Your task to perform on an android device: open app "Cash App" (install if not already installed) Image 0: 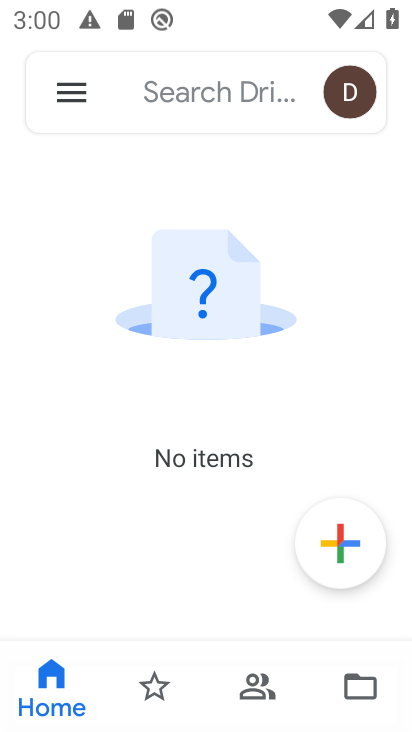
Step 0: press home button
Your task to perform on an android device: open app "Cash App" (install if not already installed) Image 1: 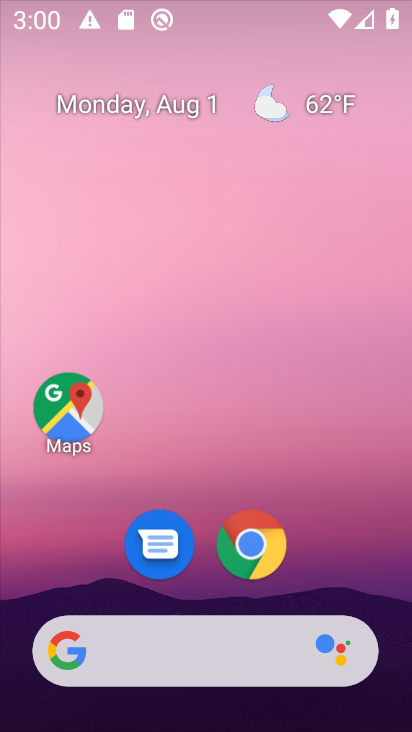
Step 1: drag from (395, 621) to (246, 18)
Your task to perform on an android device: open app "Cash App" (install if not already installed) Image 2: 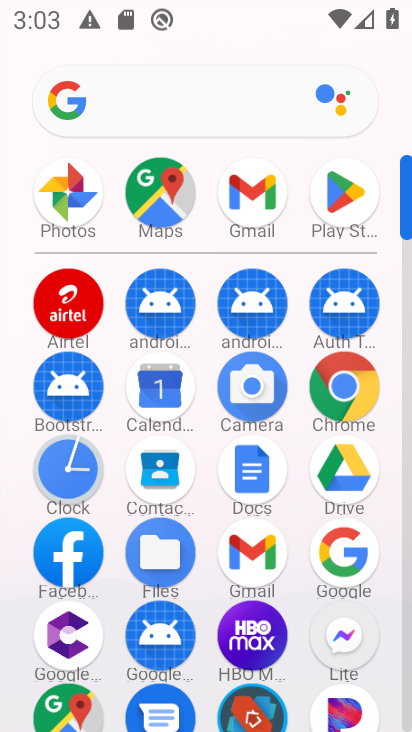
Step 2: click (347, 193)
Your task to perform on an android device: open app "Cash App" (install if not already installed) Image 3: 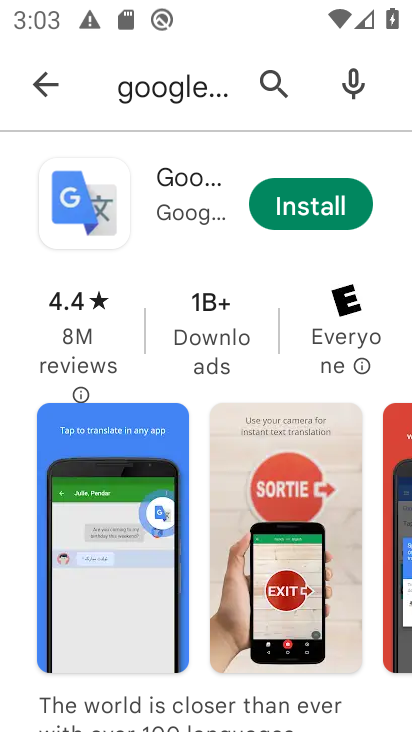
Step 3: press back button
Your task to perform on an android device: open app "Cash App" (install if not already installed) Image 4: 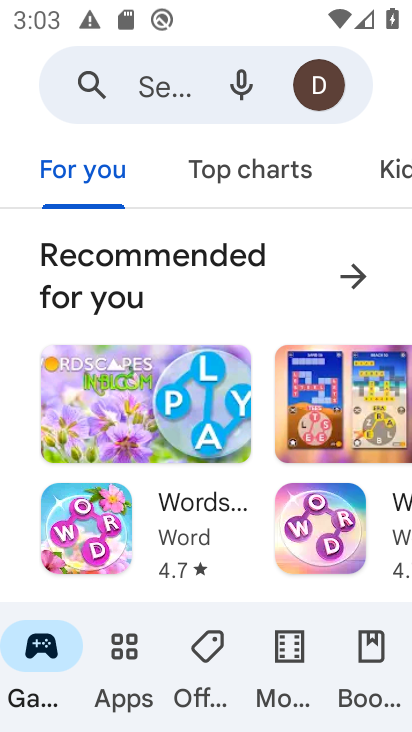
Step 4: click (149, 78)
Your task to perform on an android device: open app "Cash App" (install if not already installed) Image 5: 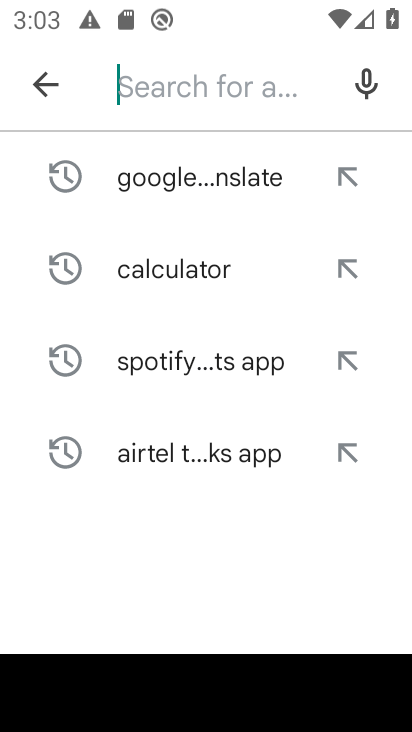
Step 5: type "Cash App"
Your task to perform on an android device: open app "Cash App" (install if not already installed) Image 6: 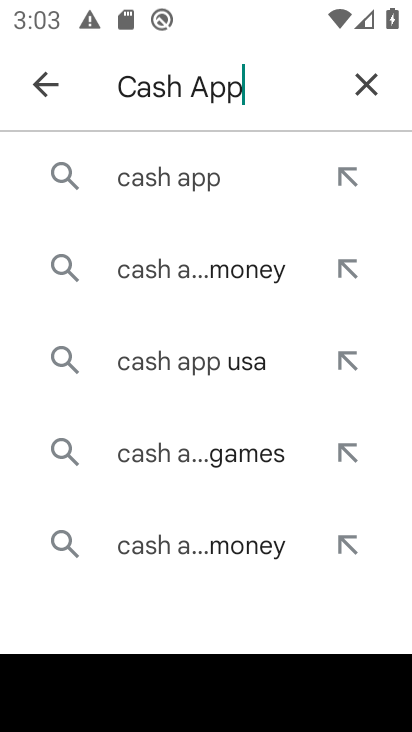
Step 6: click (162, 164)
Your task to perform on an android device: open app "Cash App" (install if not already installed) Image 7: 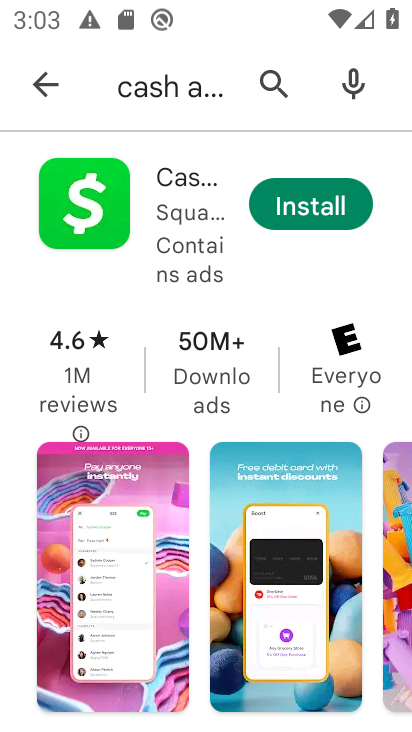
Step 7: task complete